Your task to perform on an android device: Turn on the flashlight Image 0: 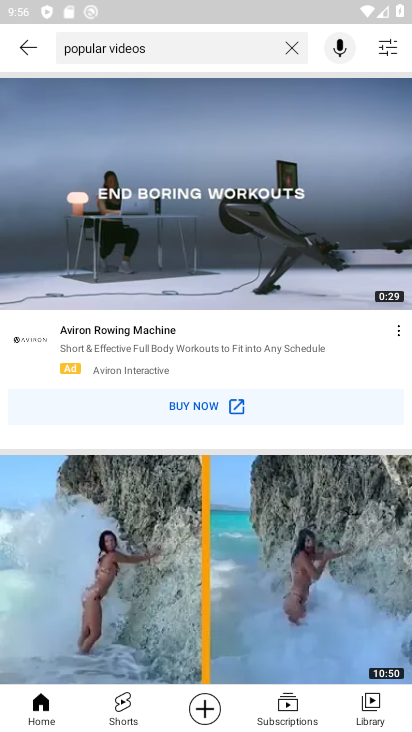
Step 0: press home button
Your task to perform on an android device: Turn on the flashlight Image 1: 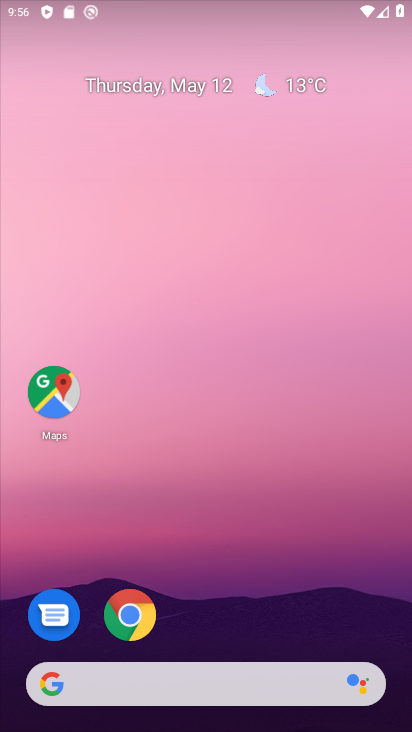
Step 1: drag from (341, 566) to (387, 0)
Your task to perform on an android device: Turn on the flashlight Image 2: 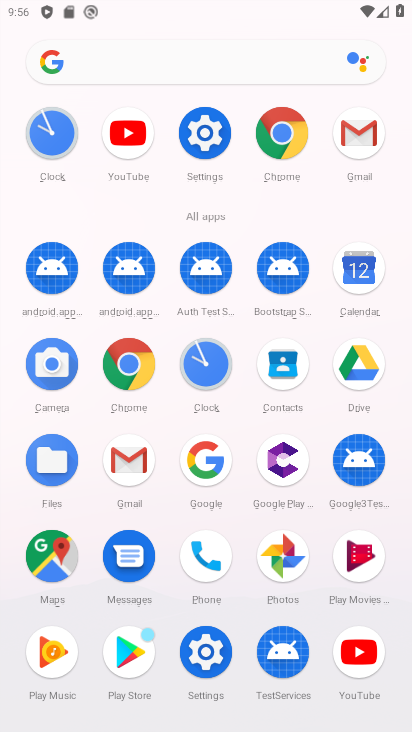
Step 2: click (193, 132)
Your task to perform on an android device: Turn on the flashlight Image 3: 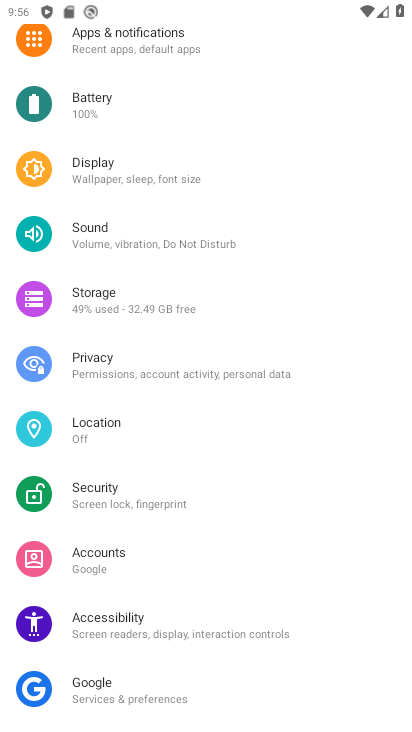
Step 3: task complete